Your task to perform on an android device: Go to Yahoo.com Image 0: 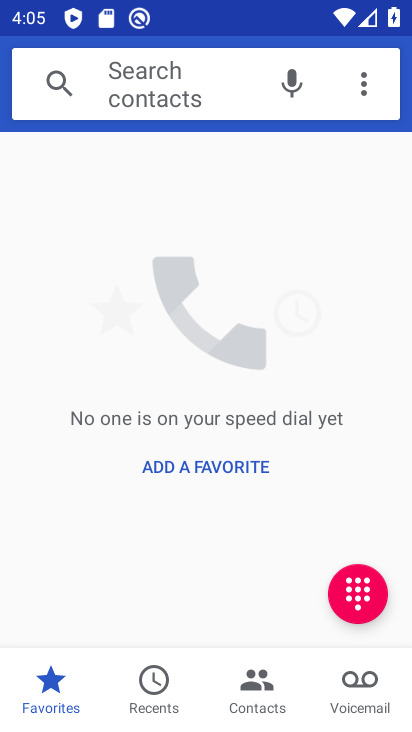
Step 0: press home button
Your task to perform on an android device: Go to Yahoo.com Image 1: 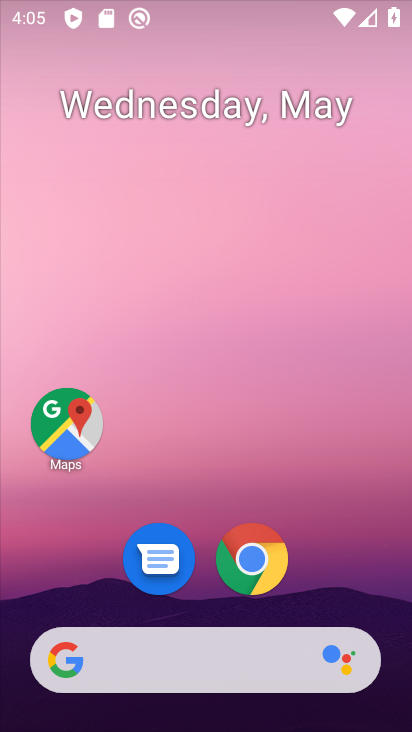
Step 1: click (260, 563)
Your task to perform on an android device: Go to Yahoo.com Image 2: 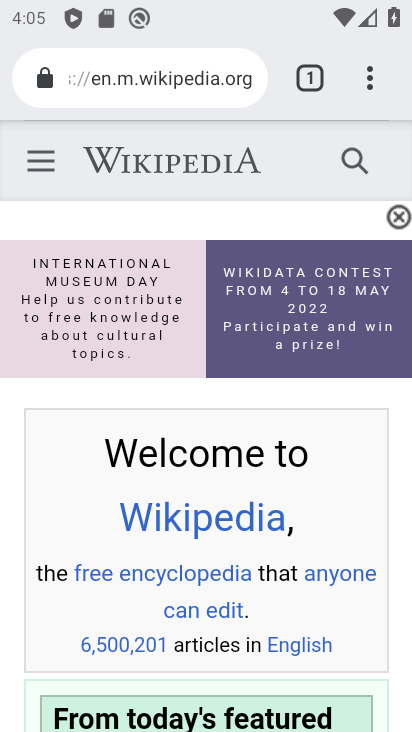
Step 2: click (356, 68)
Your task to perform on an android device: Go to Yahoo.com Image 3: 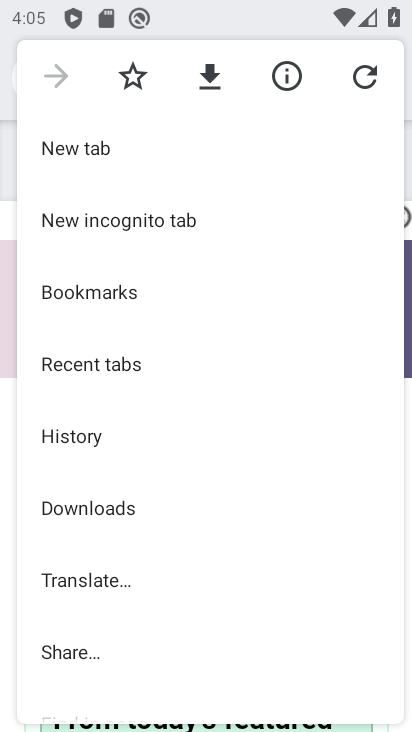
Step 3: click (102, 150)
Your task to perform on an android device: Go to Yahoo.com Image 4: 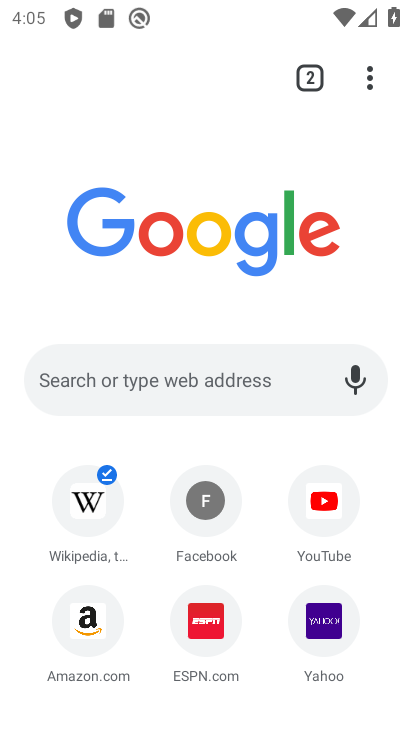
Step 4: click (327, 622)
Your task to perform on an android device: Go to Yahoo.com Image 5: 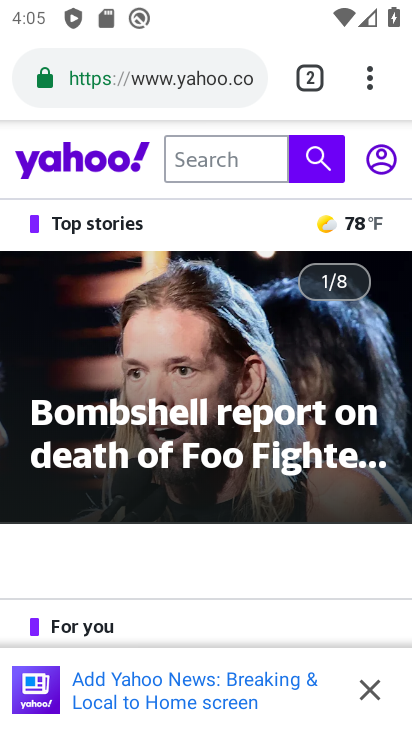
Step 5: task complete